Your task to perform on an android device: open sync settings in chrome Image 0: 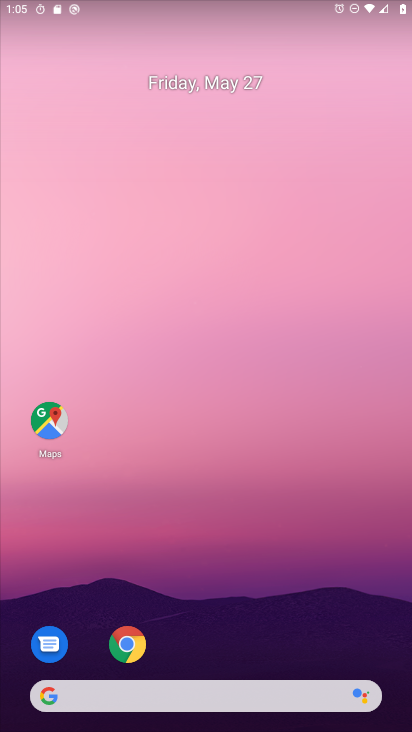
Step 0: click (141, 633)
Your task to perform on an android device: open sync settings in chrome Image 1: 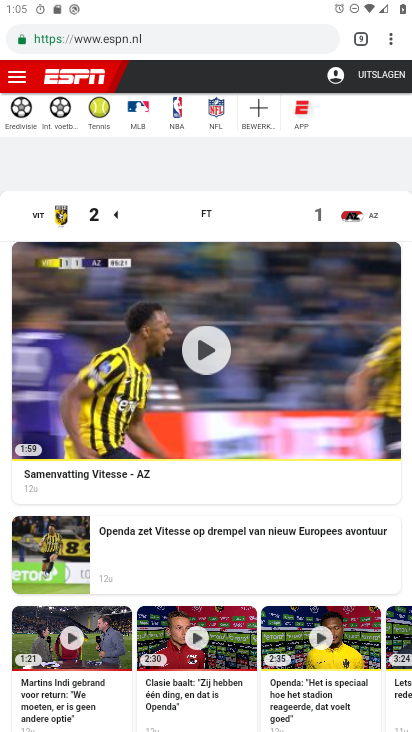
Step 1: click (396, 34)
Your task to perform on an android device: open sync settings in chrome Image 2: 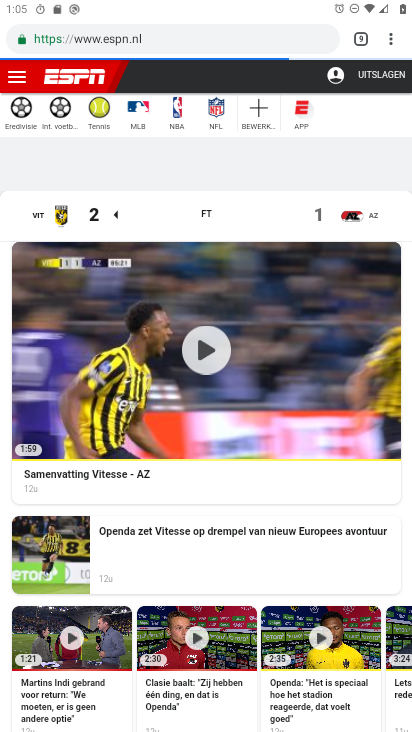
Step 2: drag from (390, 35) to (270, 455)
Your task to perform on an android device: open sync settings in chrome Image 3: 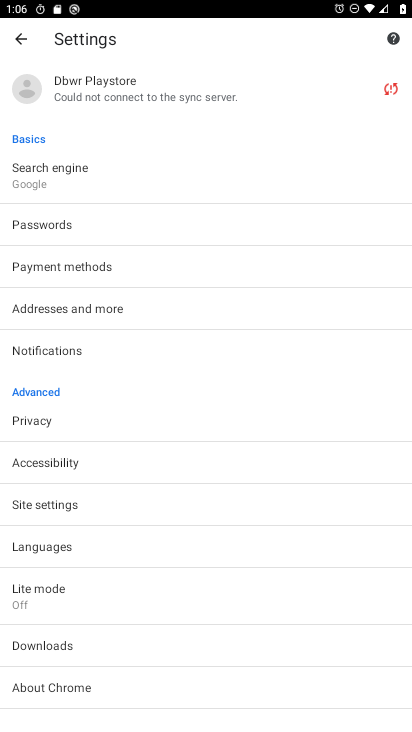
Step 3: click (147, 96)
Your task to perform on an android device: open sync settings in chrome Image 4: 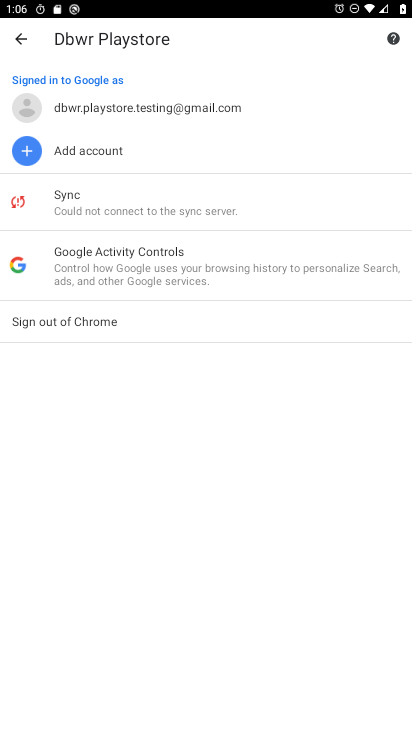
Step 4: task complete